Your task to perform on an android device: Open the phone app and click the voicemail tab. Image 0: 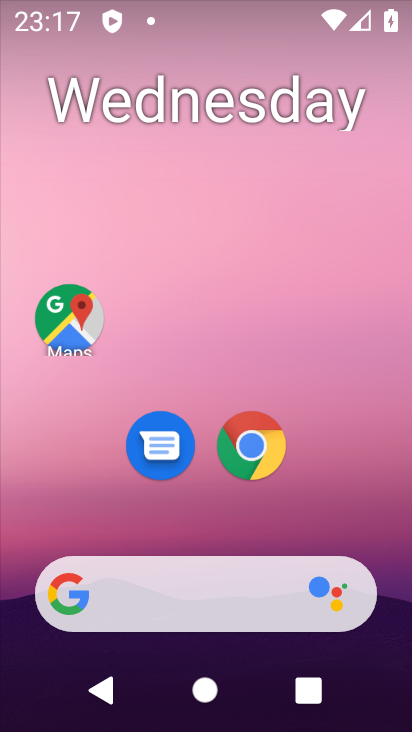
Step 0: drag from (250, 439) to (314, 55)
Your task to perform on an android device: Open the phone app and click the voicemail tab. Image 1: 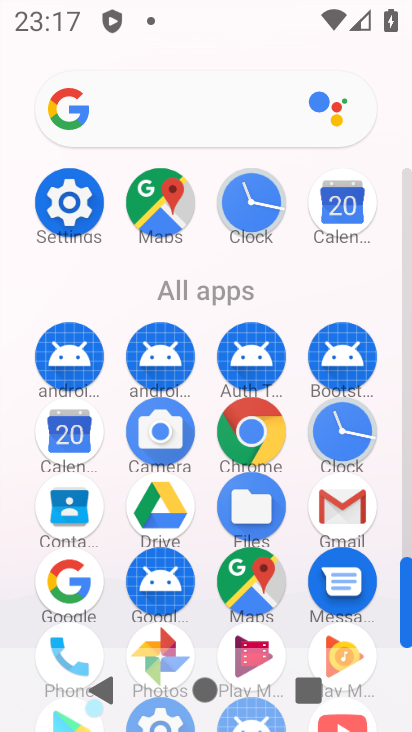
Step 1: drag from (206, 614) to (282, 163)
Your task to perform on an android device: Open the phone app and click the voicemail tab. Image 2: 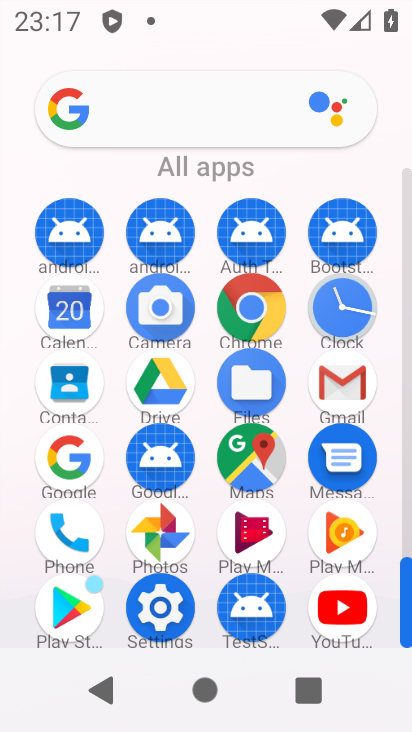
Step 2: click (61, 524)
Your task to perform on an android device: Open the phone app and click the voicemail tab. Image 3: 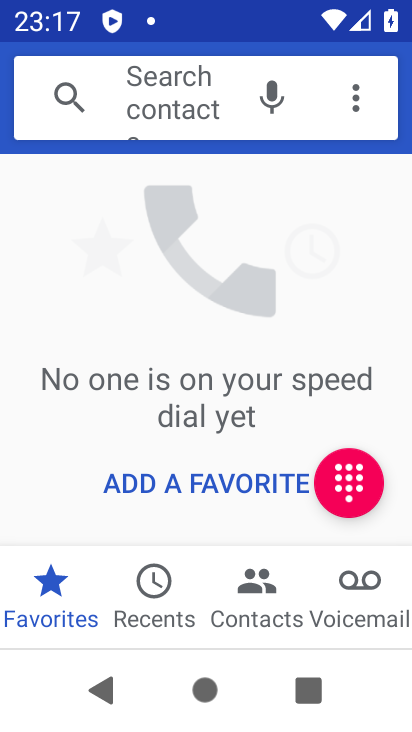
Step 3: click (353, 593)
Your task to perform on an android device: Open the phone app and click the voicemail tab. Image 4: 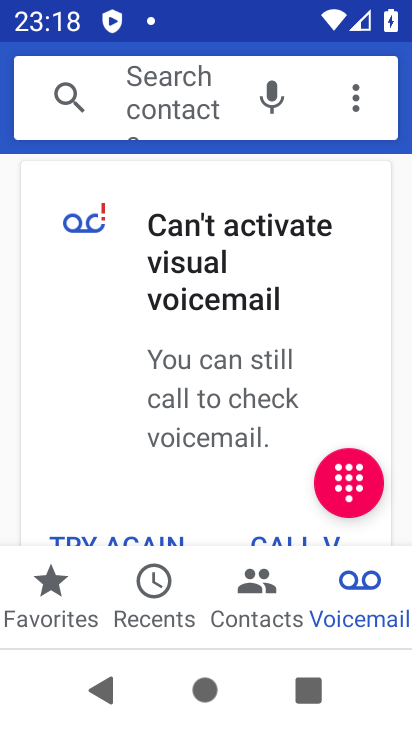
Step 4: task complete